Your task to perform on an android device: open app "Google Play Games" (install if not already installed) Image 0: 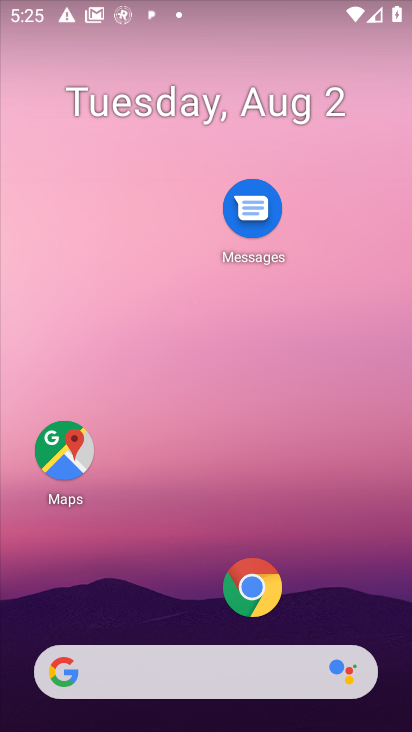
Step 0: drag from (169, 589) to (180, 191)
Your task to perform on an android device: open app "Google Play Games" (install if not already installed) Image 1: 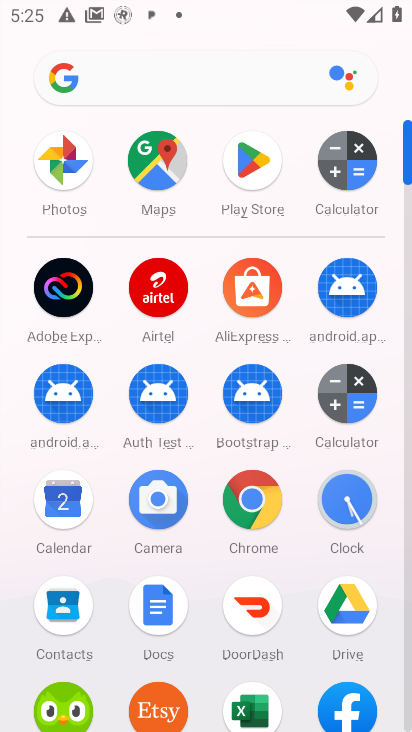
Step 1: click (251, 181)
Your task to perform on an android device: open app "Google Play Games" (install if not already installed) Image 2: 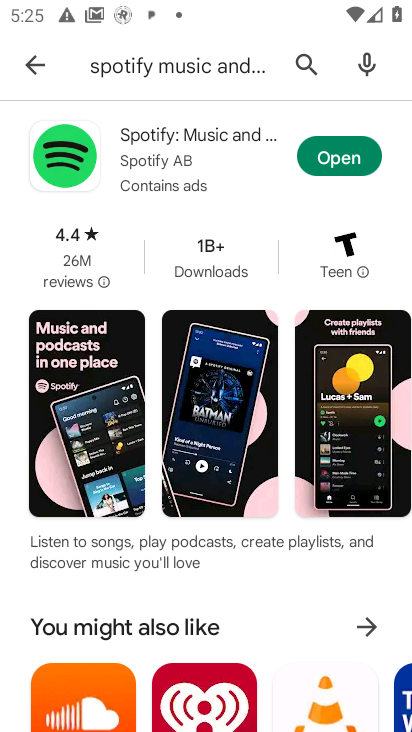
Step 2: click (313, 72)
Your task to perform on an android device: open app "Google Play Games" (install if not already installed) Image 3: 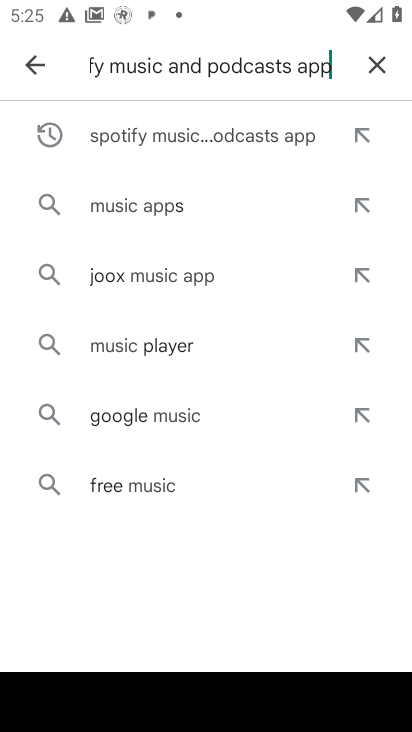
Step 3: click (361, 59)
Your task to perform on an android device: open app "Google Play Games" (install if not already installed) Image 4: 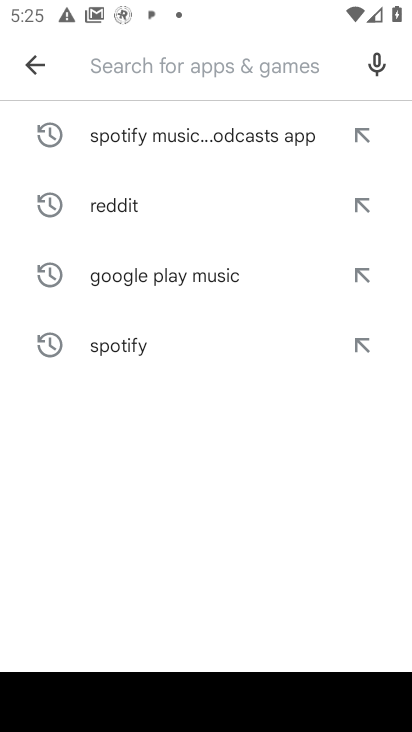
Step 4: type "Google Play Games"
Your task to perform on an android device: open app "Google Play Games" (install if not already installed) Image 5: 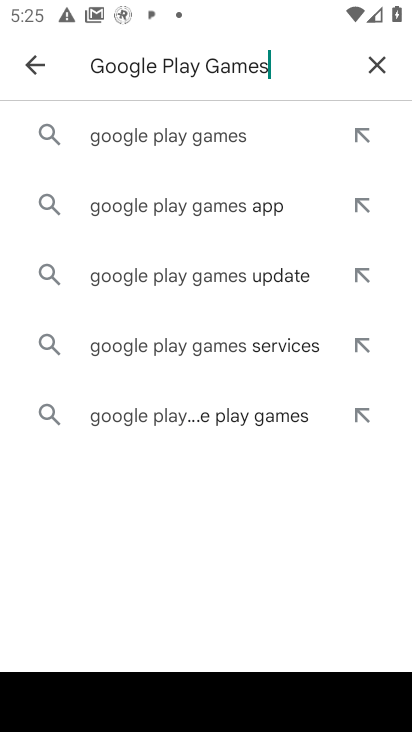
Step 5: type ""
Your task to perform on an android device: open app "Google Play Games" (install if not already installed) Image 6: 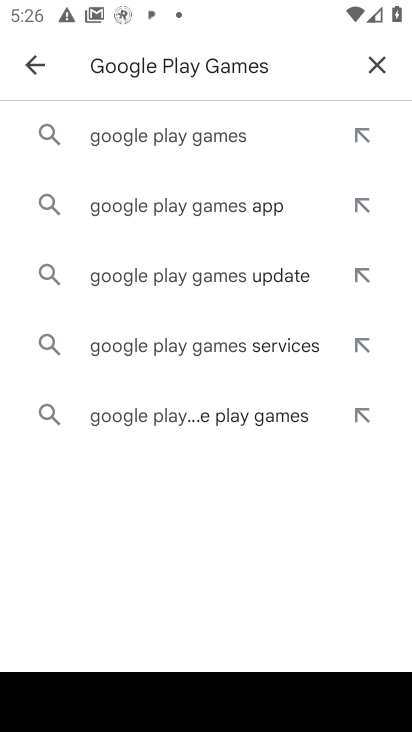
Step 6: click (194, 149)
Your task to perform on an android device: open app "Google Play Games" (install if not already installed) Image 7: 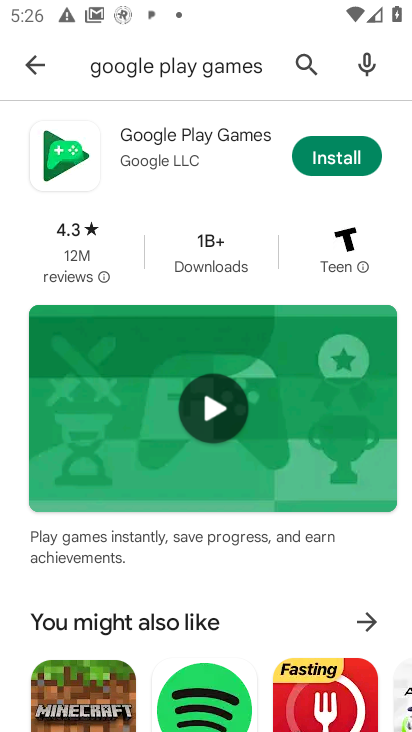
Step 7: click (375, 153)
Your task to perform on an android device: open app "Google Play Games" (install if not already installed) Image 8: 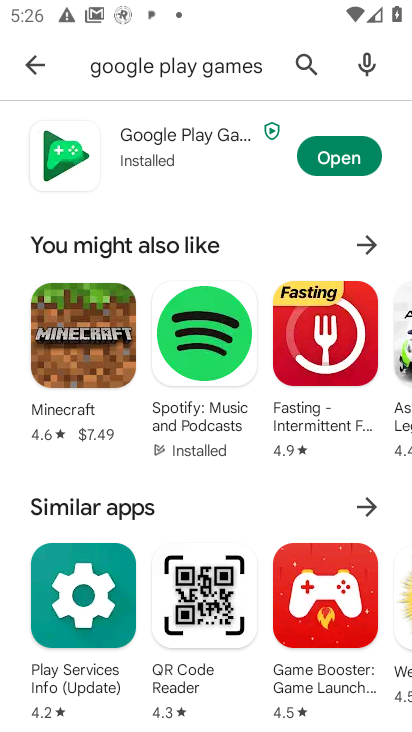
Step 8: click (323, 158)
Your task to perform on an android device: open app "Google Play Games" (install if not already installed) Image 9: 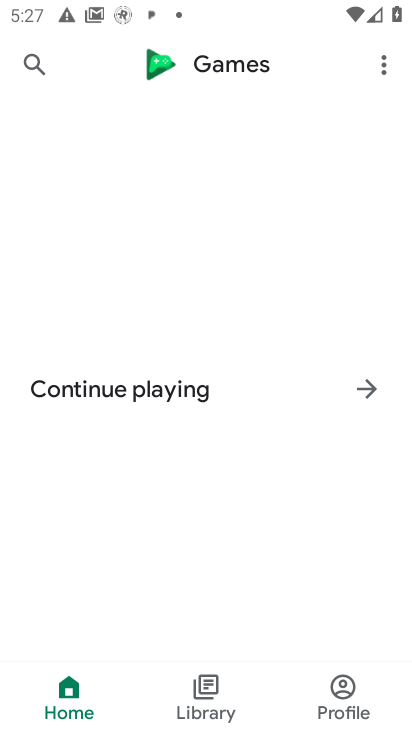
Step 9: task complete